Your task to perform on an android device: What's the weather going to be this weekend? Image 0: 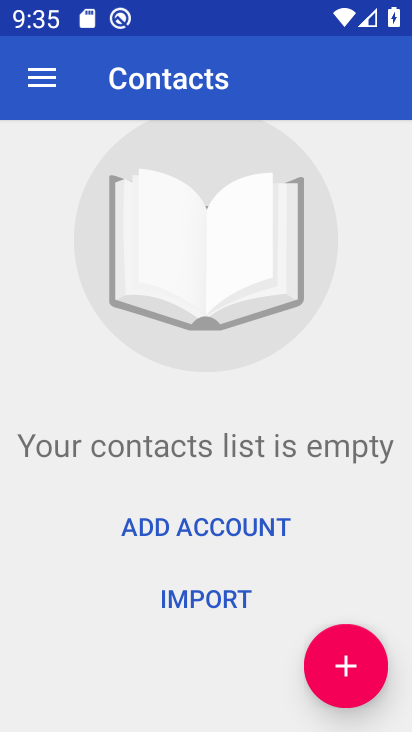
Step 0: press home button
Your task to perform on an android device: What's the weather going to be this weekend? Image 1: 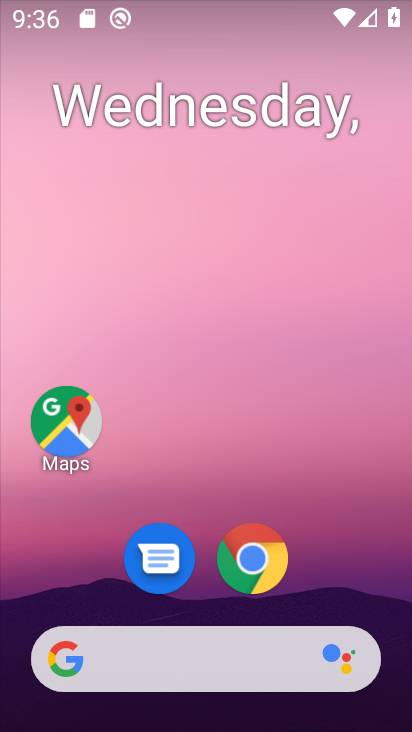
Step 1: click (242, 648)
Your task to perform on an android device: What's the weather going to be this weekend? Image 2: 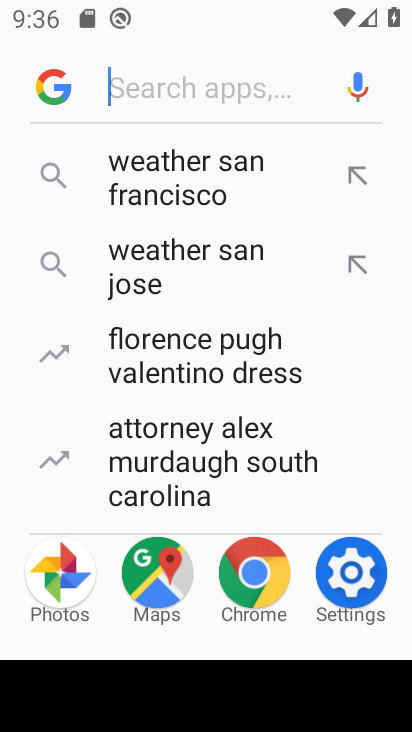
Step 2: type "weather"
Your task to perform on an android device: What's the weather going to be this weekend? Image 3: 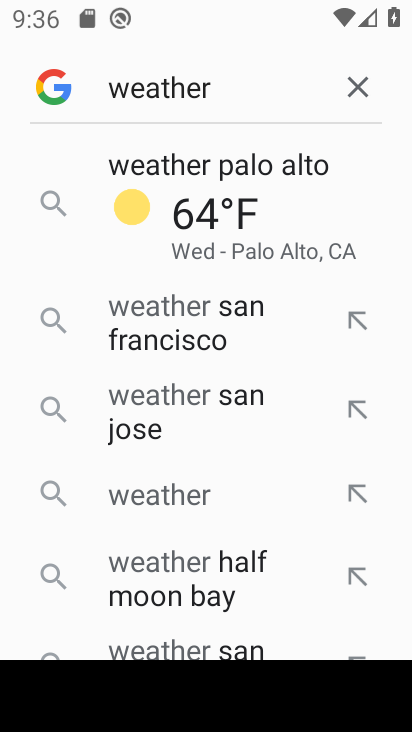
Step 3: click (255, 201)
Your task to perform on an android device: What's the weather going to be this weekend? Image 4: 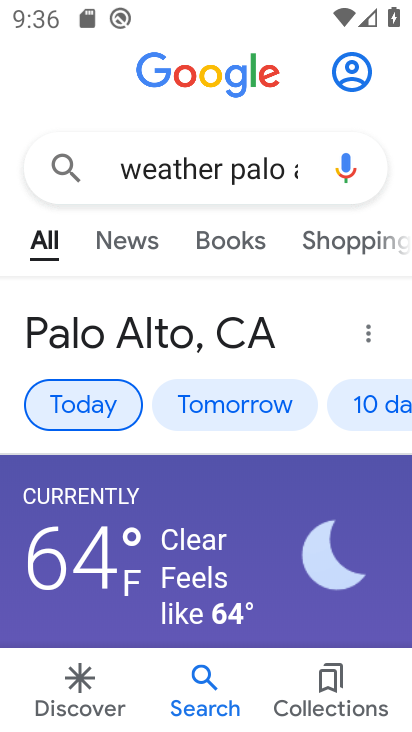
Step 4: click (369, 414)
Your task to perform on an android device: What's the weather going to be this weekend? Image 5: 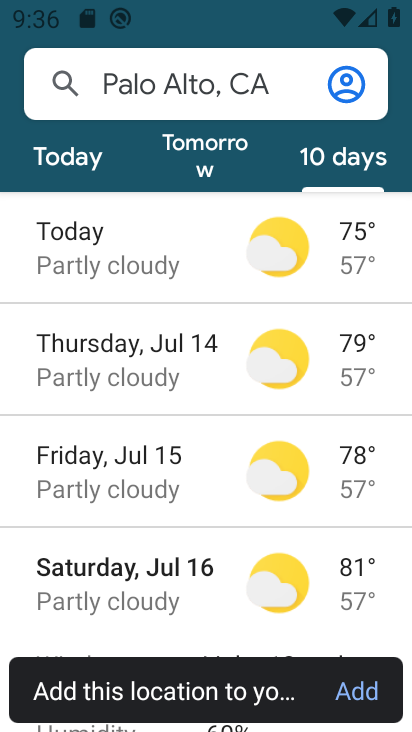
Step 5: task complete